Your task to perform on an android device: Open calendar and show me the third week of next month Image 0: 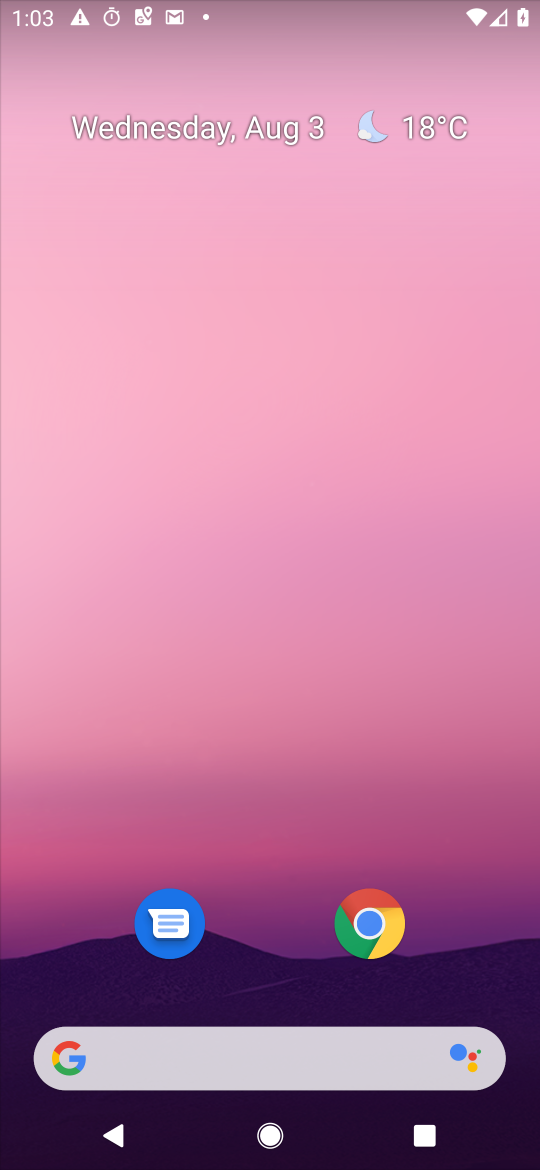
Step 0: click (433, 285)
Your task to perform on an android device: Open calendar and show me the third week of next month Image 1: 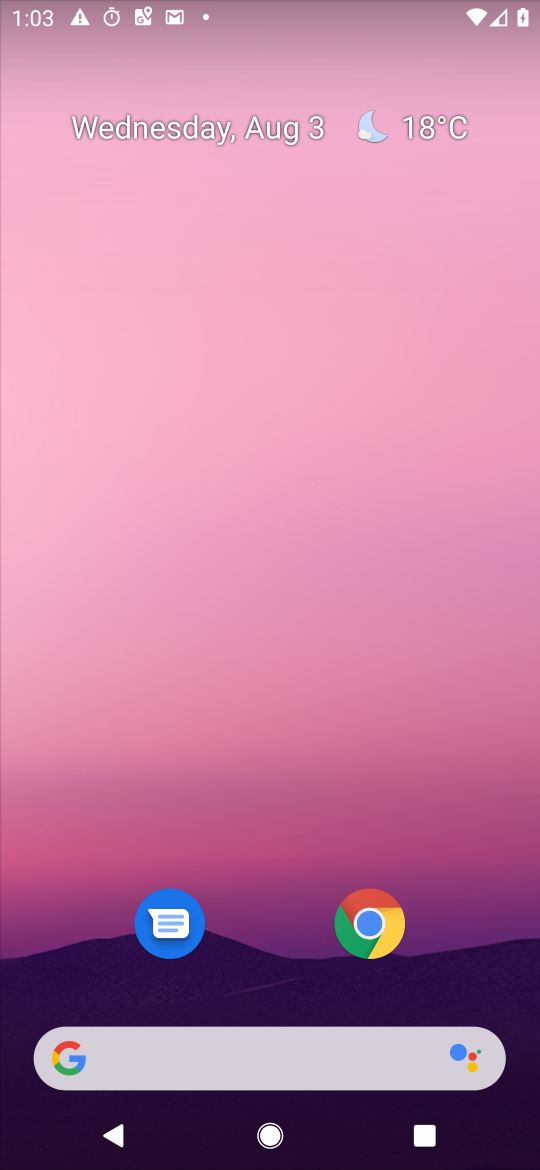
Step 1: drag from (270, 736) to (253, 381)
Your task to perform on an android device: Open calendar and show me the third week of next month Image 2: 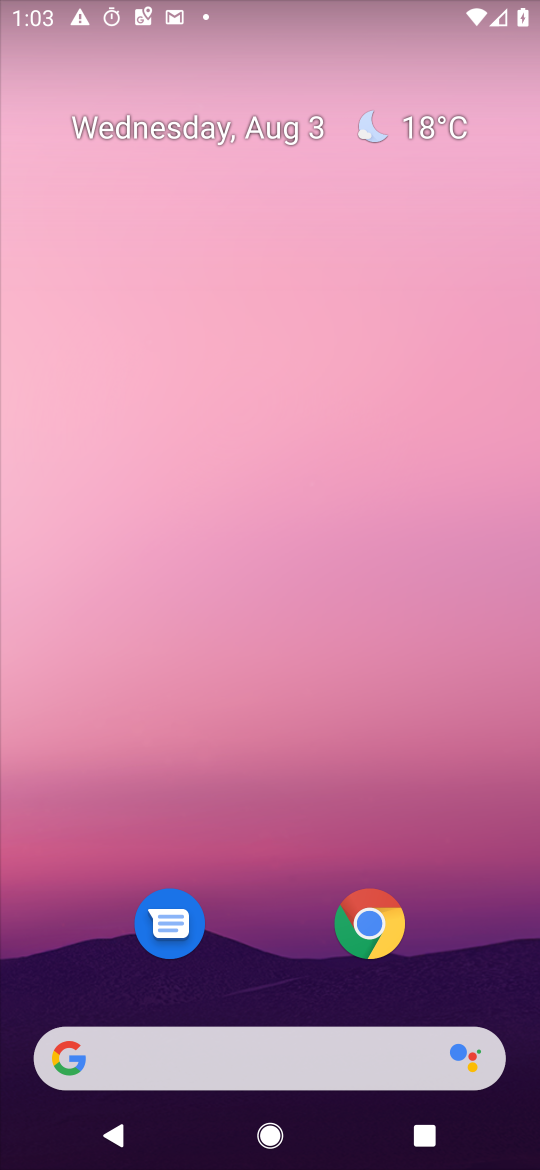
Step 2: drag from (319, 934) to (413, 102)
Your task to perform on an android device: Open calendar and show me the third week of next month Image 3: 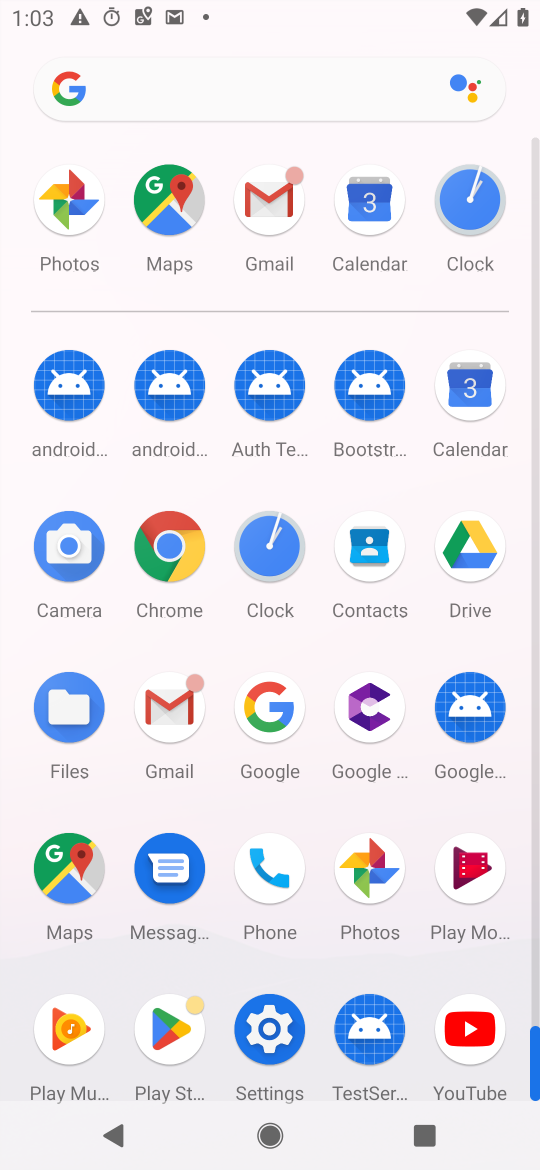
Step 3: click (381, 203)
Your task to perform on an android device: Open calendar and show me the third week of next month Image 4: 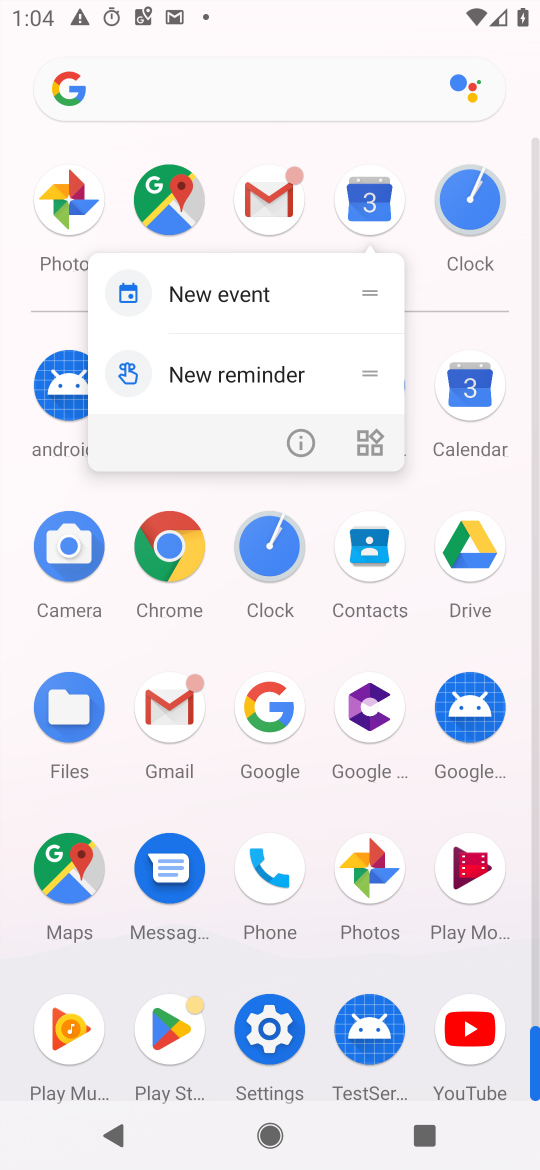
Step 4: click (292, 430)
Your task to perform on an android device: Open calendar and show me the third week of next month Image 5: 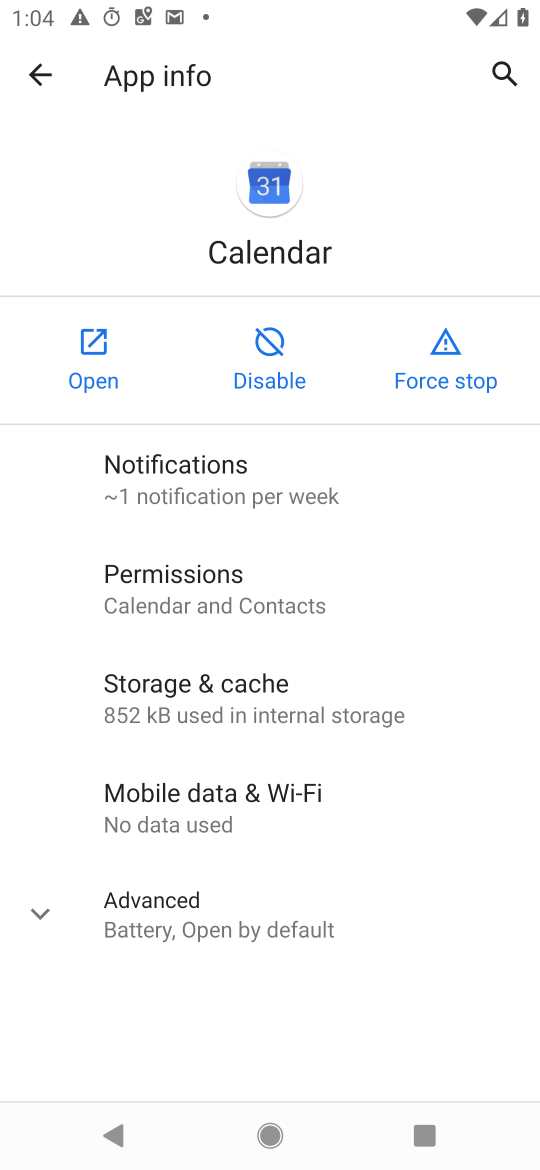
Step 5: click (108, 347)
Your task to perform on an android device: Open calendar and show me the third week of next month Image 6: 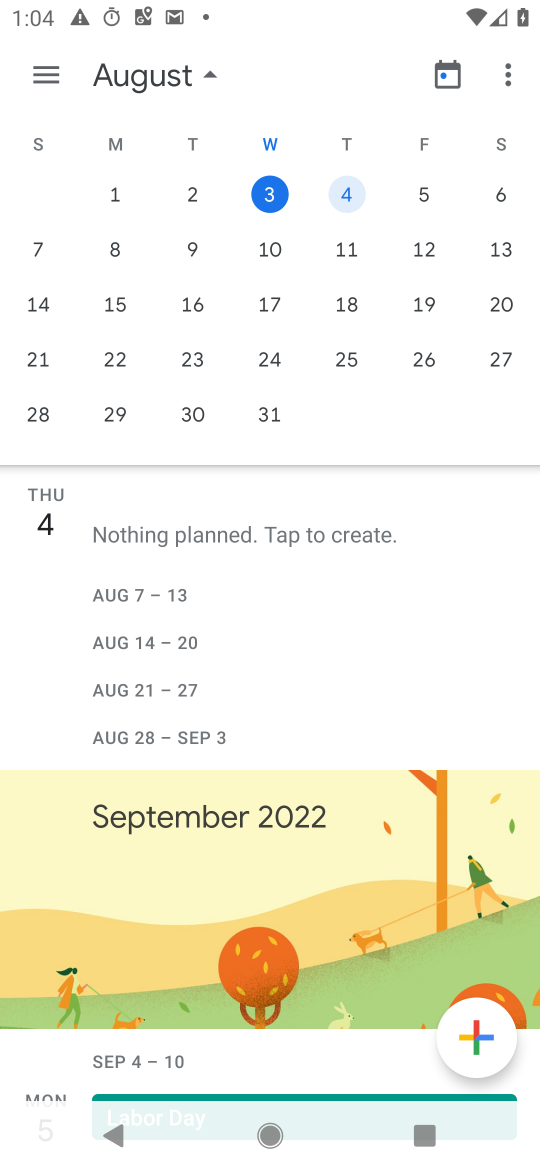
Step 6: drag from (459, 301) to (20, 321)
Your task to perform on an android device: Open calendar and show me the third week of next month Image 7: 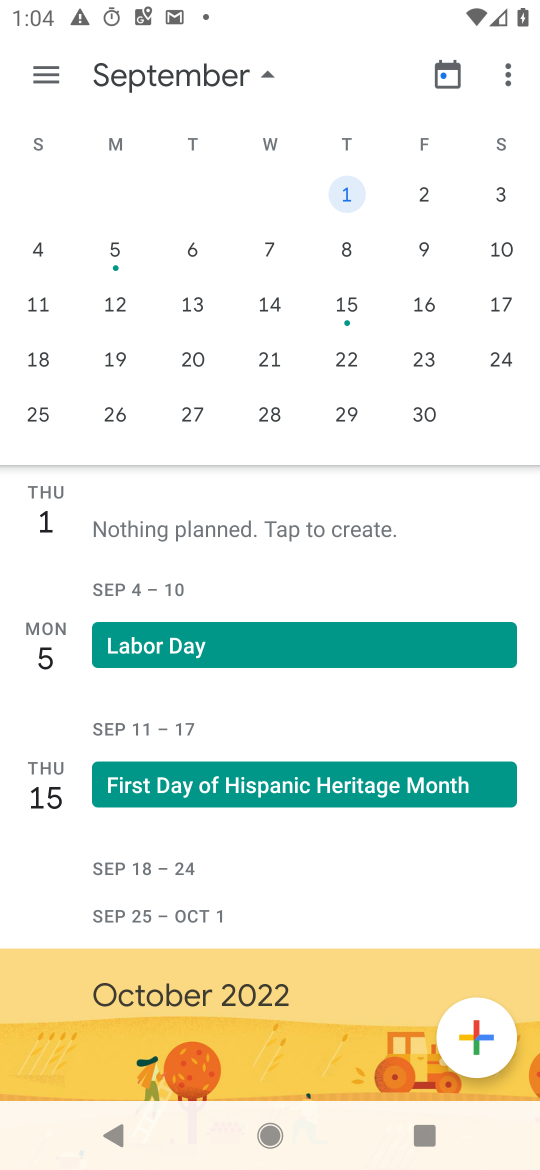
Step 7: click (274, 298)
Your task to perform on an android device: Open calendar and show me the third week of next month Image 8: 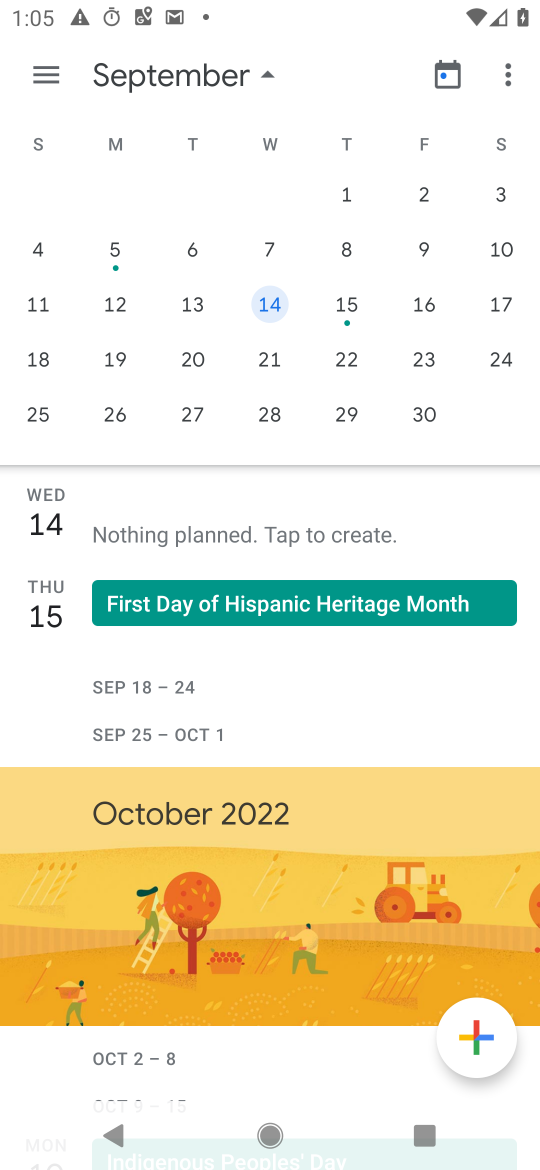
Step 8: task complete